Your task to perform on an android device: Go to battery settings Image 0: 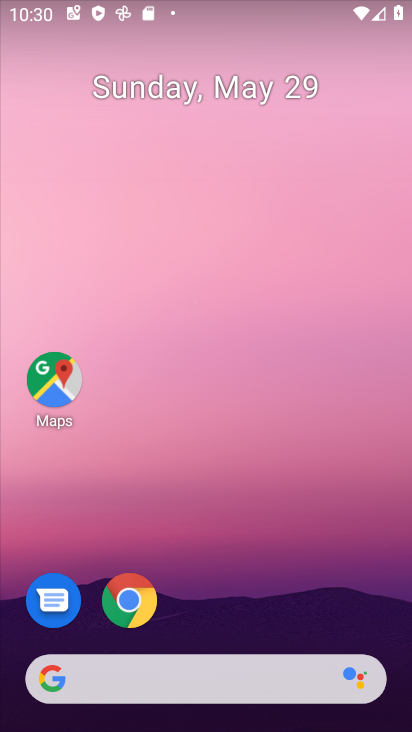
Step 0: drag from (217, 543) to (192, 146)
Your task to perform on an android device: Go to battery settings Image 1: 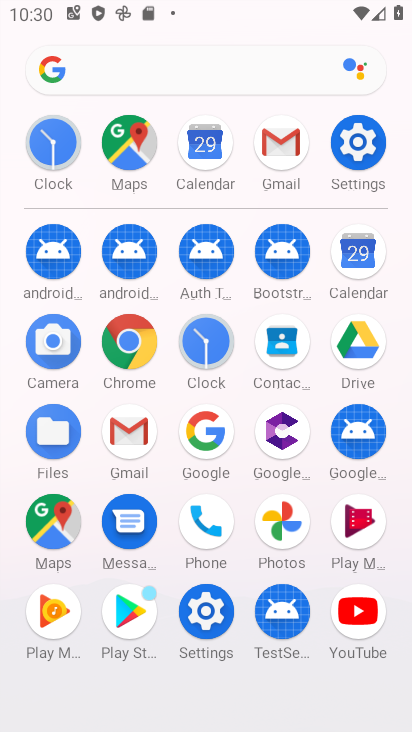
Step 1: click (353, 146)
Your task to perform on an android device: Go to battery settings Image 2: 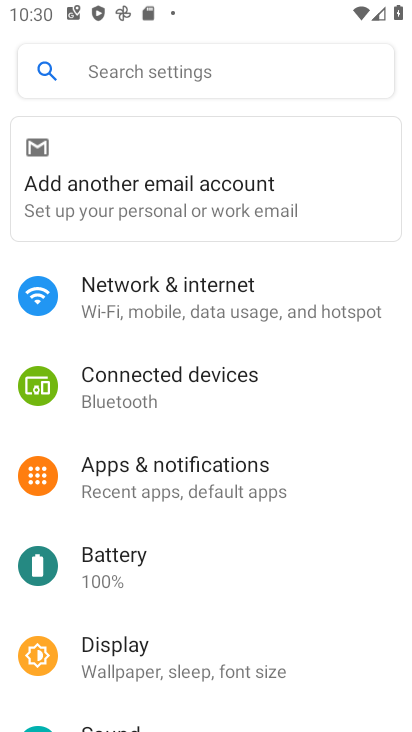
Step 2: click (112, 562)
Your task to perform on an android device: Go to battery settings Image 3: 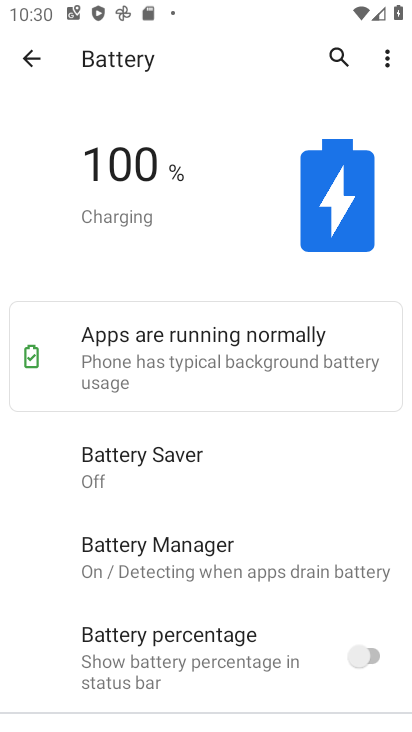
Step 3: task complete